Your task to perform on an android device: change the clock display to show seconds Image 0: 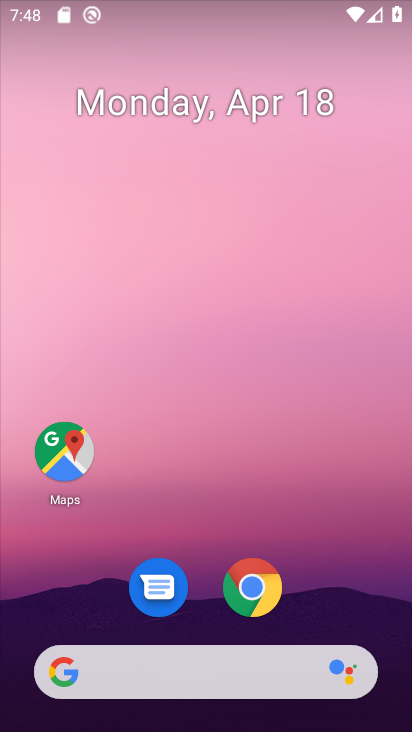
Step 0: drag from (209, 348) to (206, 190)
Your task to perform on an android device: change the clock display to show seconds Image 1: 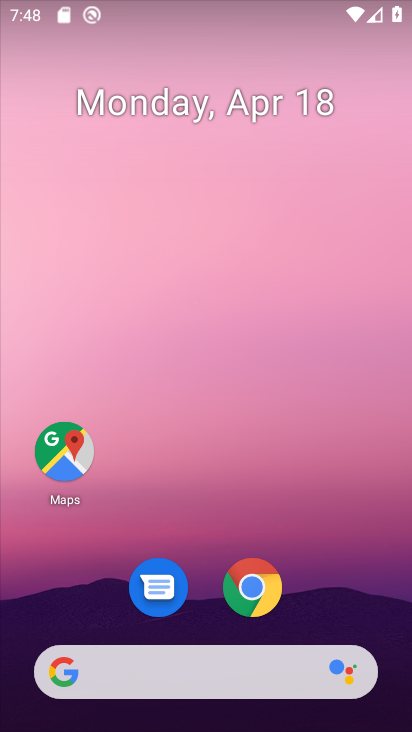
Step 1: drag from (199, 484) to (197, 14)
Your task to perform on an android device: change the clock display to show seconds Image 2: 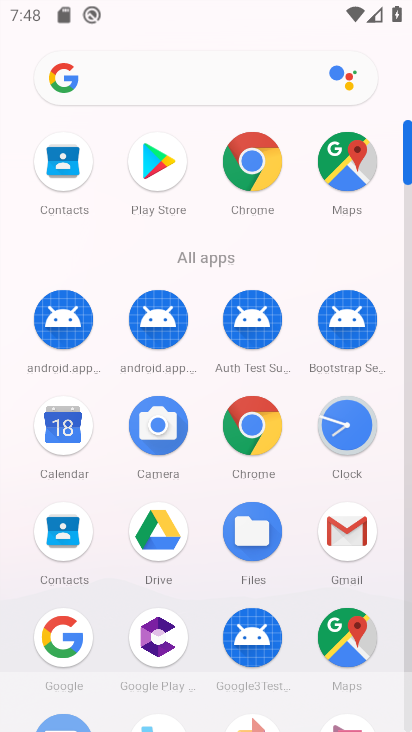
Step 2: click (367, 434)
Your task to perform on an android device: change the clock display to show seconds Image 3: 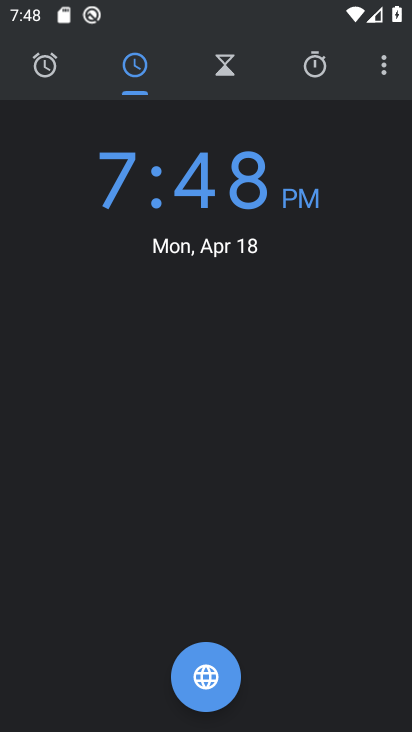
Step 3: click (374, 62)
Your task to perform on an android device: change the clock display to show seconds Image 4: 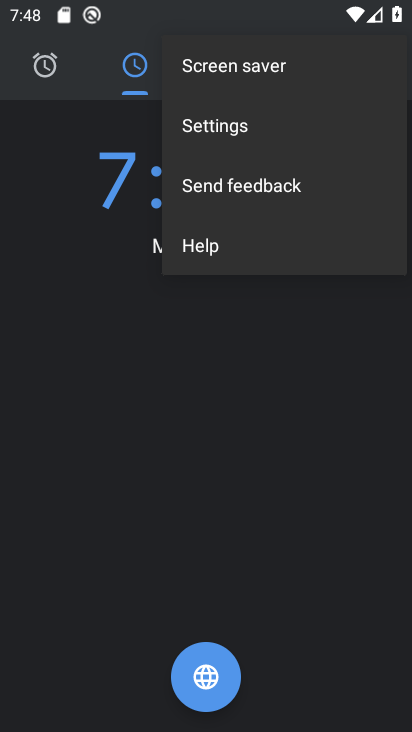
Step 4: click (253, 114)
Your task to perform on an android device: change the clock display to show seconds Image 5: 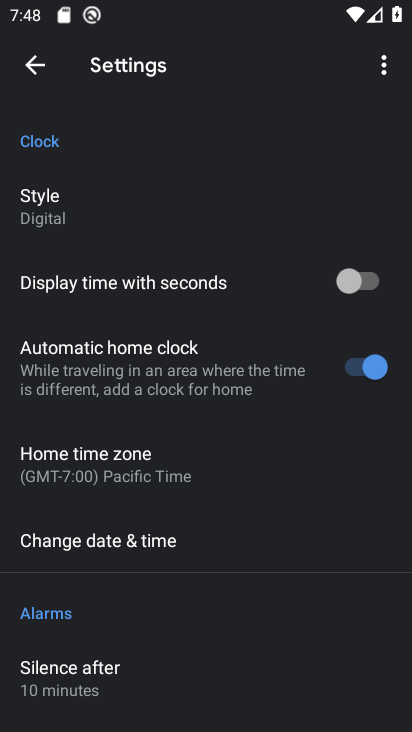
Step 5: click (367, 291)
Your task to perform on an android device: change the clock display to show seconds Image 6: 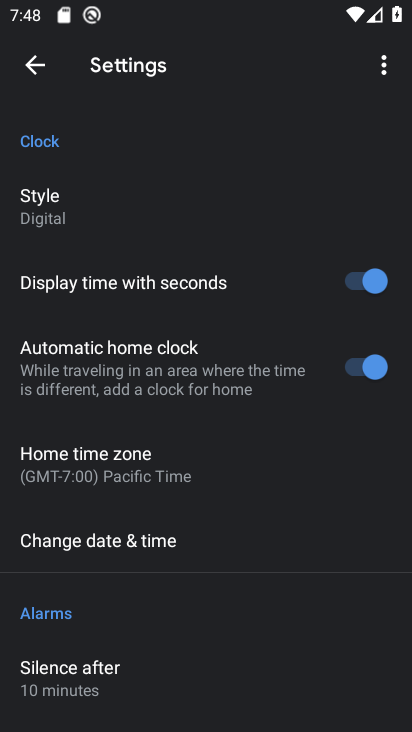
Step 6: task complete